Your task to perform on an android device: Open Google Image 0: 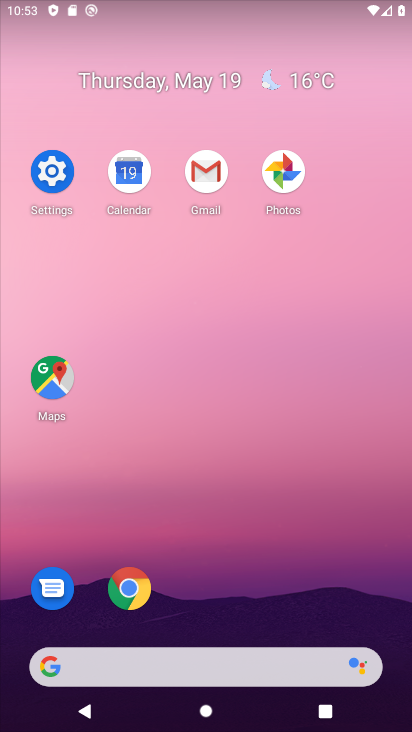
Step 0: drag from (226, 577) to (295, 100)
Your task to perform on an android device: Open Google Image 1: 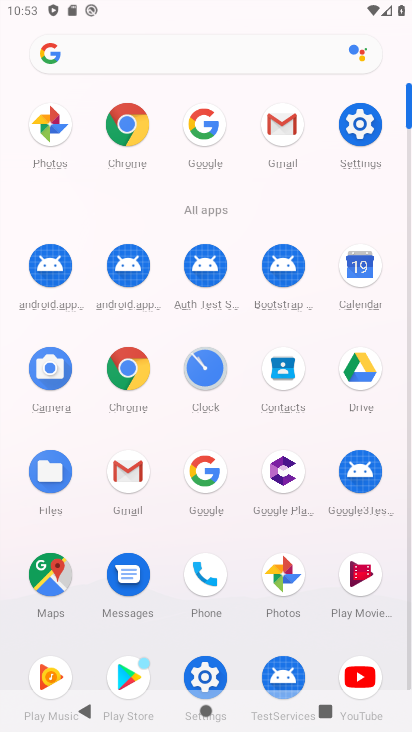
Step 1: drag from (204, 471) to (94, 268)
Your task to perform on an android device: Open Google Image 2: 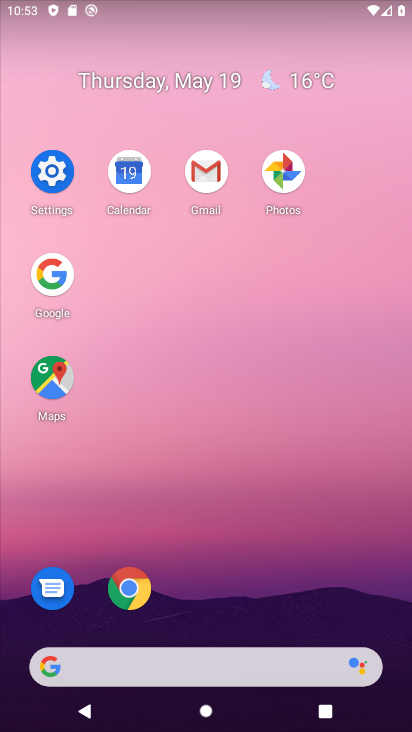
Step 2: click (67, 265)
Your task to perform on an android device: Open Google Image 3: 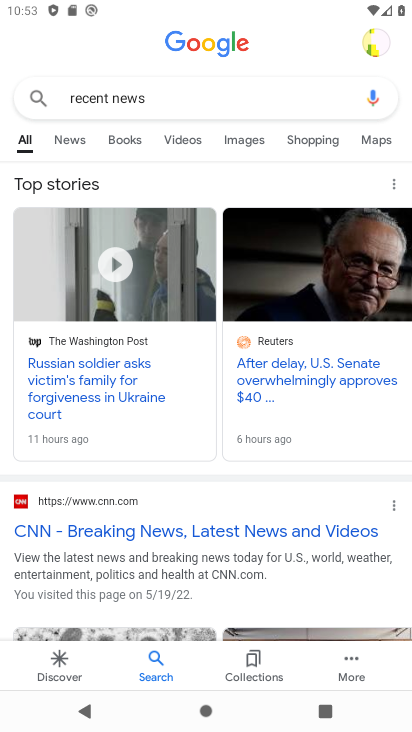
Step 3: task complete